Your task to perform on an android device: turn on sleep mode Image 0: 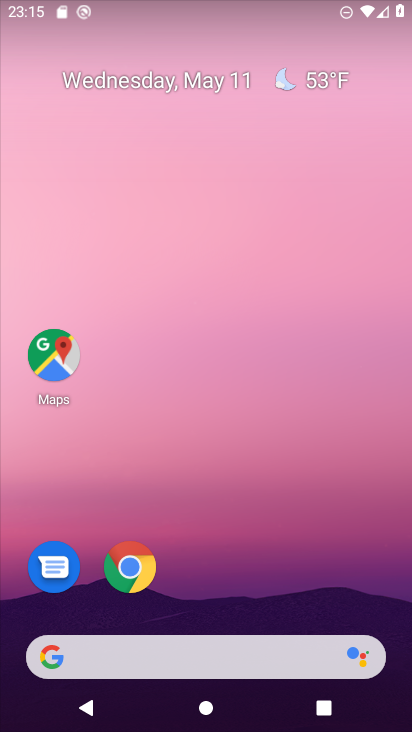
Step 0: drag from (166, 717) to (121, 77)
Your task to perform on an android device: turn on sleep mode Image 1: 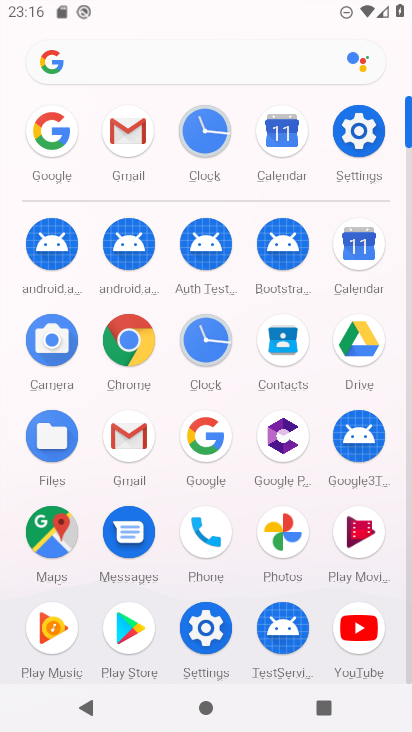
Step 1: click (361, 142)
Your task to perform on an android device: turn on sleep mode Image 2: 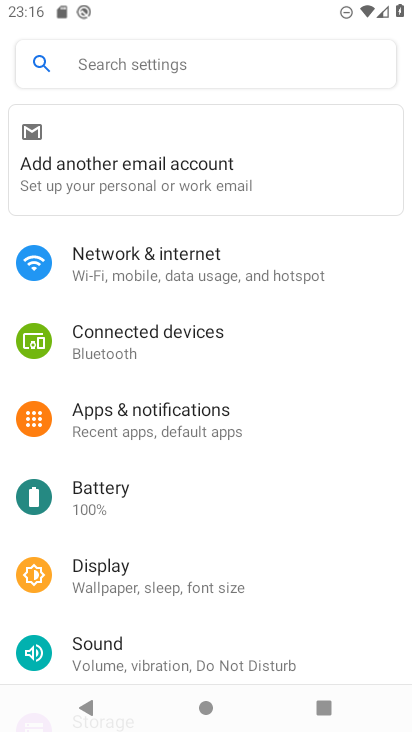
Step 2: click (239, 589)
Your task to perform on an android device: turn on sleep mode Image 3: 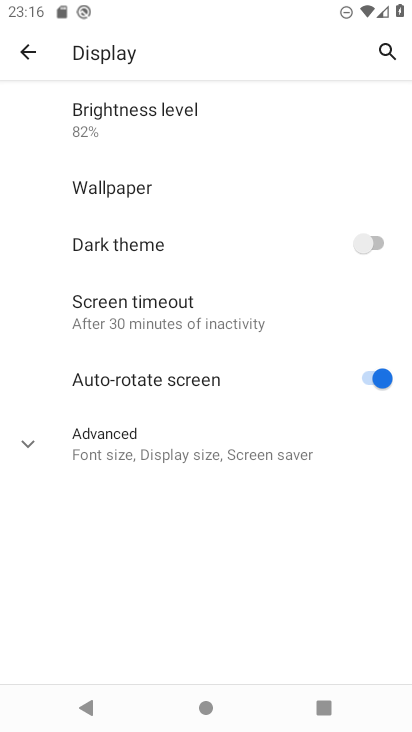
Step 3: task complete